Your task to perform on an android device: turn off translation in the chrome app Image 0: 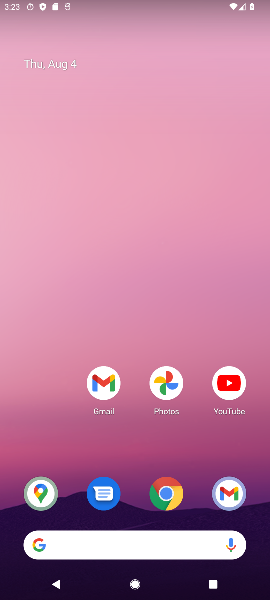
Step 0: click (152, 511)
Your task to perform on an android device: turn off translation in the chrome app Image 1: 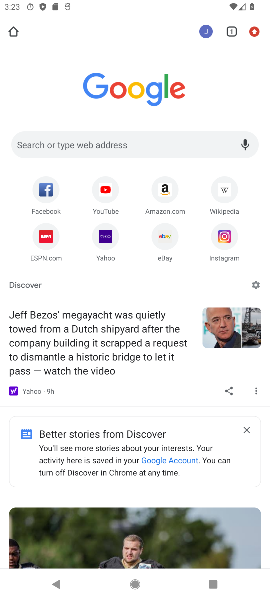
Step 1: click (246, 33)
Your task to perform on an android device: turn off translation in the chrome app Image 2: 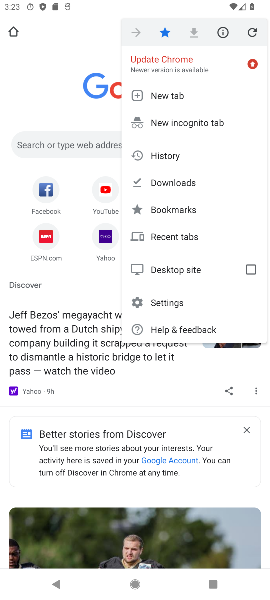
Step 2: click (167, 296)
Your task to perform on an android device: turn off translation in the chrome app Image 3: 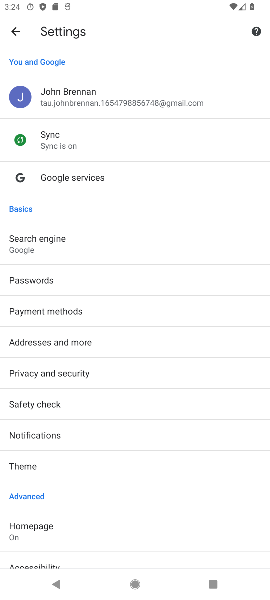
Step 3: drag from (105, 500) to (123, 147)
Your task to perform on an android device: turn off translation in the chrome app Image 4: 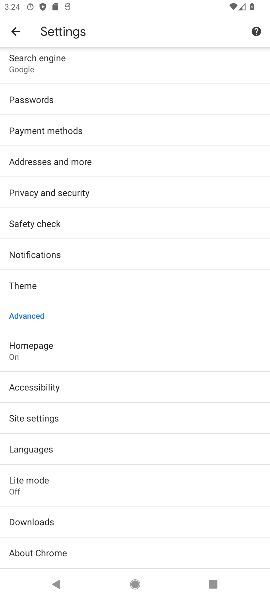
Step 4: click (25, 445)
Your task to perform on an android device: turn off translation in the chrome app Image 5: 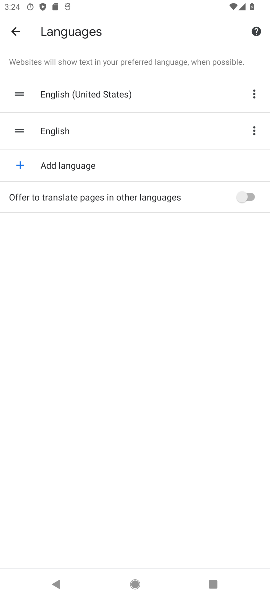
Step 5: click (237, 199)
Your task to perform on an android device: turn off translation in the chrome app Image 6: 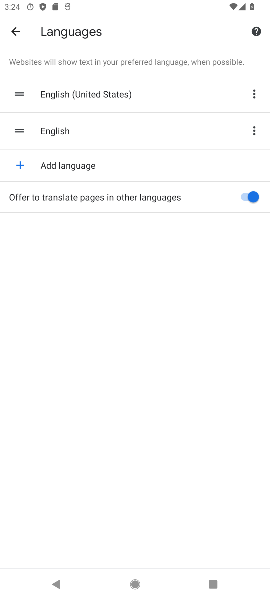
Step 6: task complete